Your task to perform on an android device: change the clock display to analog Image 0: 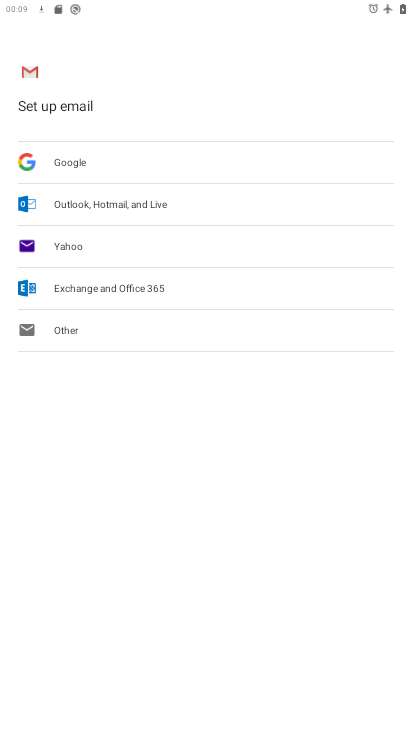
Step 0: press home button
Your task to perform on an android device: change the clock display to analog Image 1: 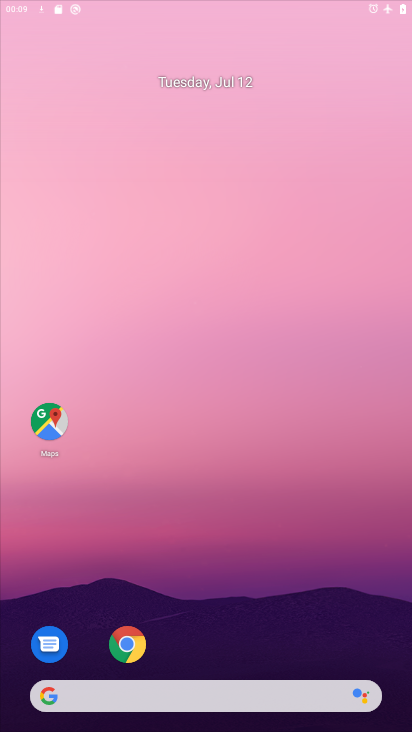
Step 1: drag from (191, 673) to (188, 336)
Your task to perform on an android device: change the clock display to analog Image 2: 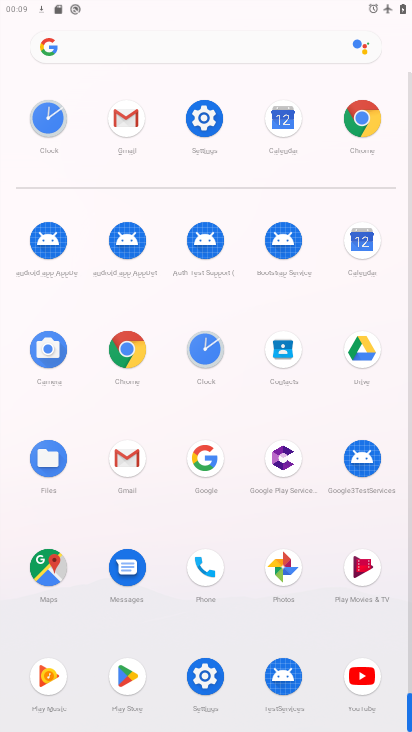
Step 2: click (202, 349)
Your task to perform on an android device: change the clock display to analog Image 3: 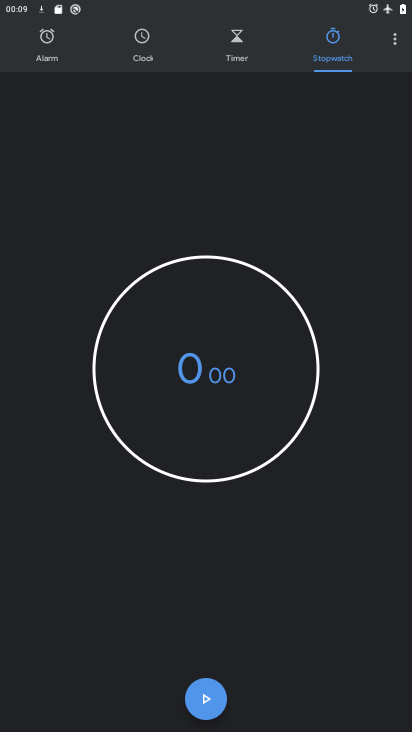
Step 3: click (389, 44)
Your task to perform on an android device: change the clock display to analog Image 4: 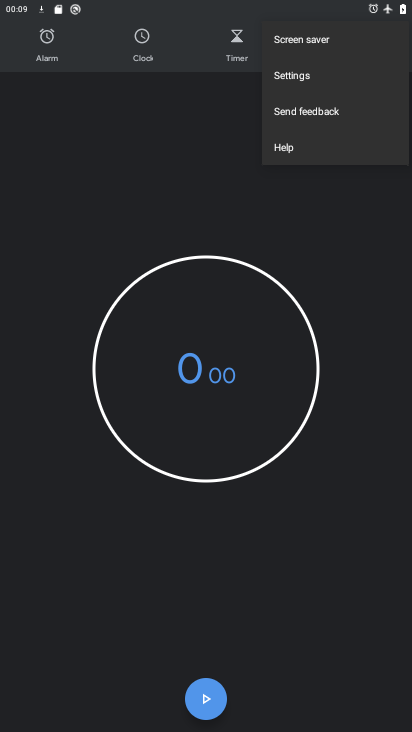
Step 4: click (288, 67)
Your task to perform on an android device: change the clock display to analog Image 5: 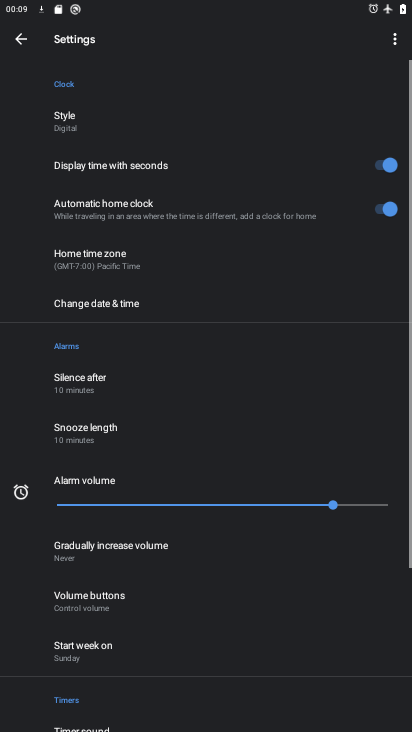
Step 5: click (69, 125)
Your task to perform on an android device: change the clock display to analog Image 6: 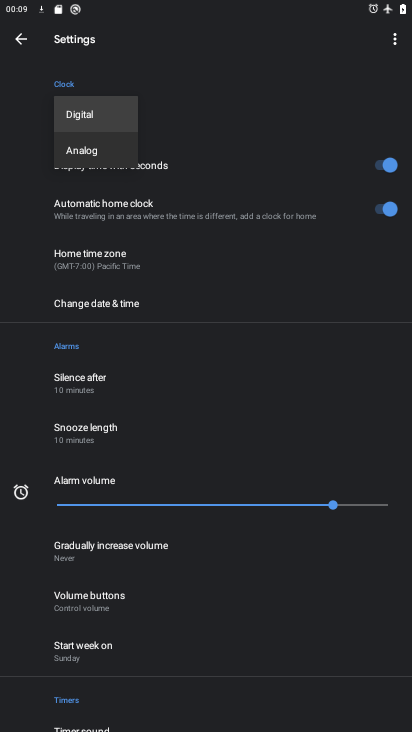
Step 6: click (100, 151)
Your task to perform on an android device: change the clock display to analog Image 7: 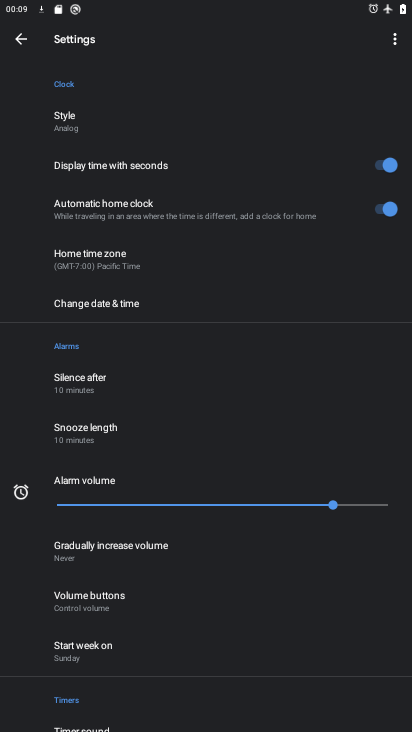
Step 7: task complete